Your task to perform on an android device: toggle wifi Image 0: 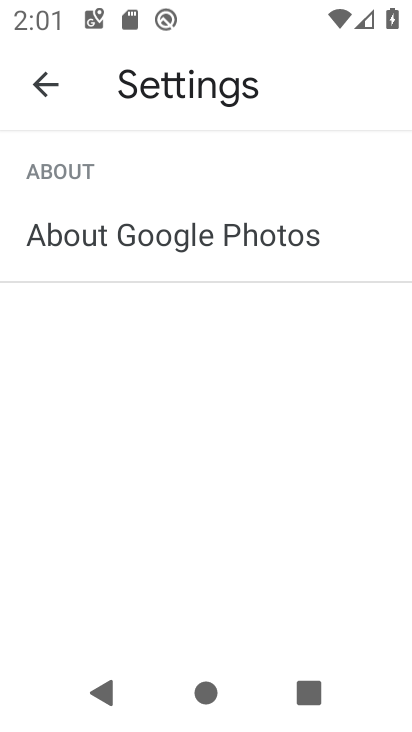
Step 0: press home button
Your task to perform on an android device: toggle wifi Image 1: 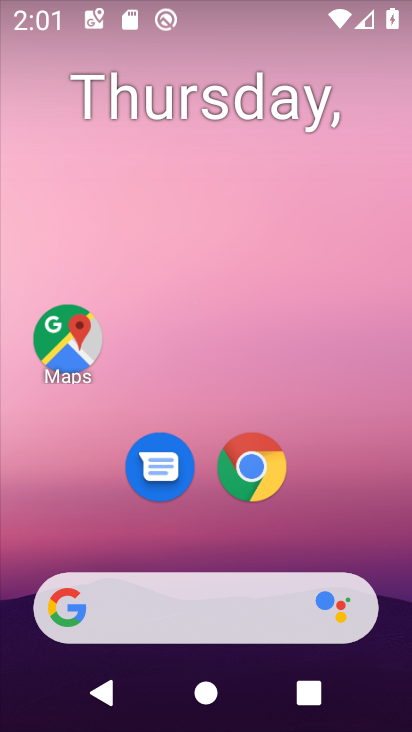
Step 1: drag from (258, 572) to (324, 41)
Your task to perform on an android device: toggle wifi Image 2: 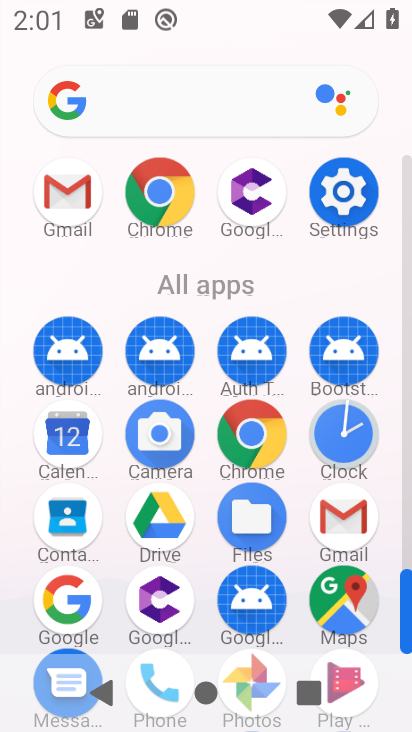
Step 2: click (342, 195)
Your task to perform on an android device: toggle wifi Image 3: 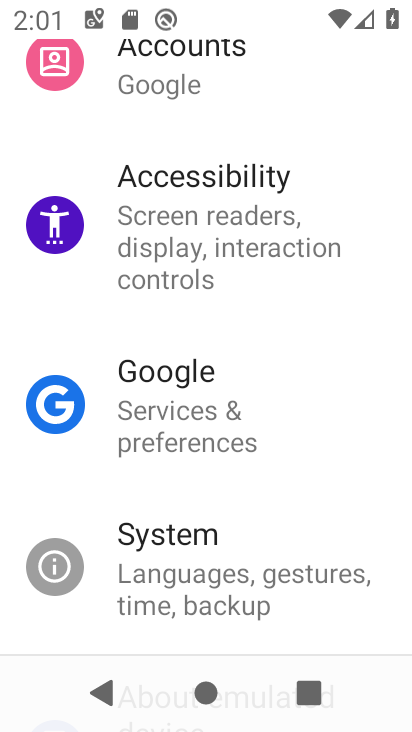
Step 3: drag from (177, 248) to (155, 729)
Your task to perform on an android device: toggle wifi Image 4: 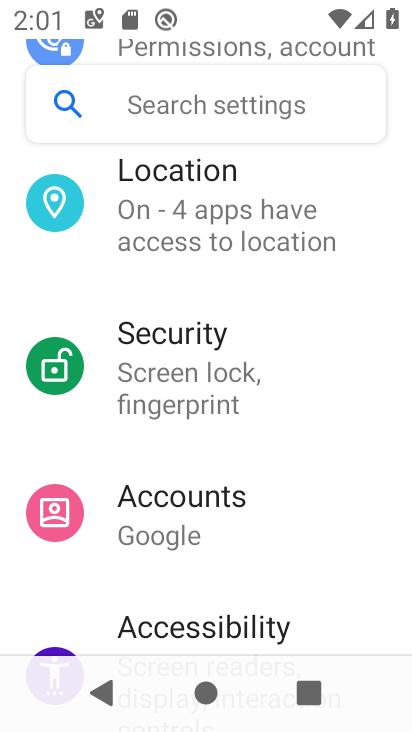
Step 4: drag from (189, 224) to (148, 712)
Your task to perform on an android device: toggle wifi Image 5: 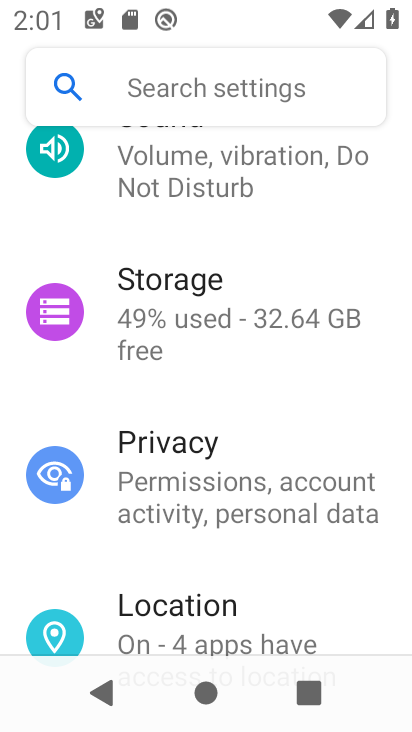
Step 5: drag from (243, 218) to (212, 717)
Your task to perform on an android device: toggle wifi Image 6: 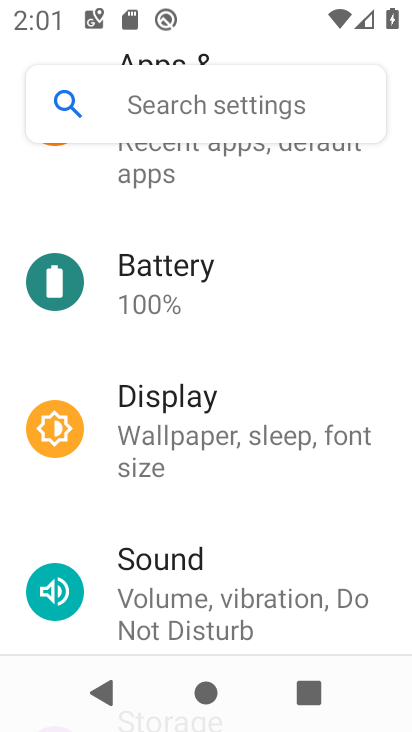
Step 6: drag from (211, 261) to (207, 597)
Your task to perform on an android device: toggle wifi Image 7: 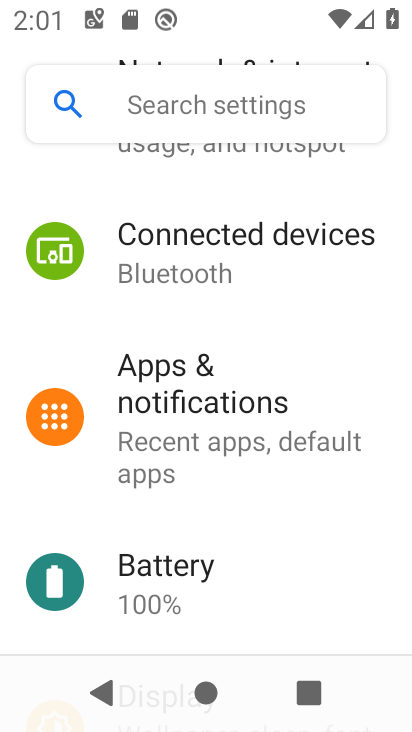
Step 7: drag from (238, 238) to (251, 622)
Your task to perform on an android device: toggle wifi Image 8: 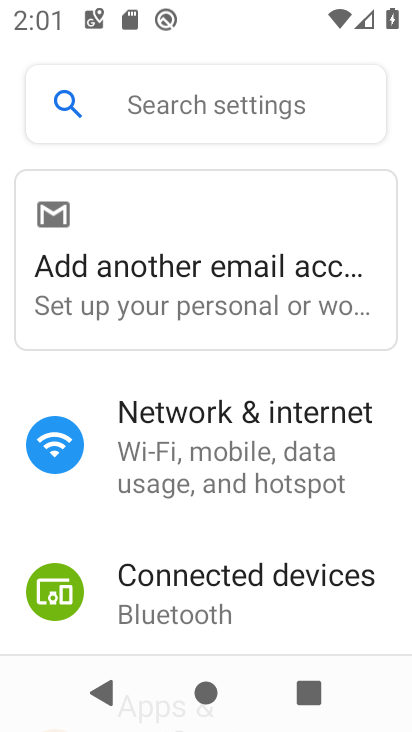
Step 8: click (245, 422)
Your task to perform on an android device: toggle wifi Image 9: 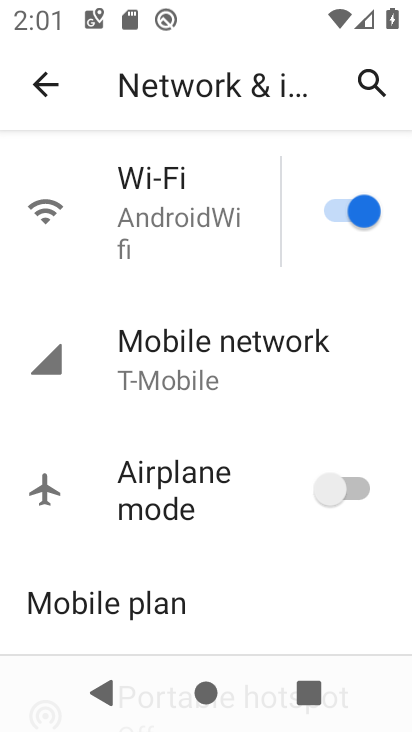
Step 9: click (191, 229)
Your task to perform on an android device: toggle wifi Image 10: 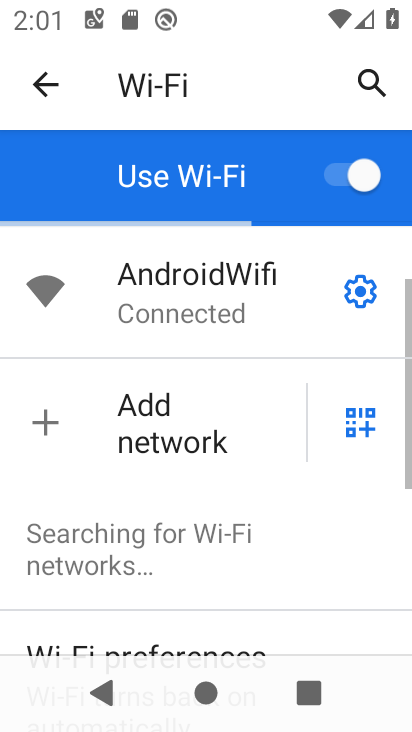
Step 10: click (378, 183)
Your task to perform on an android device: toggle wifi Image 11: 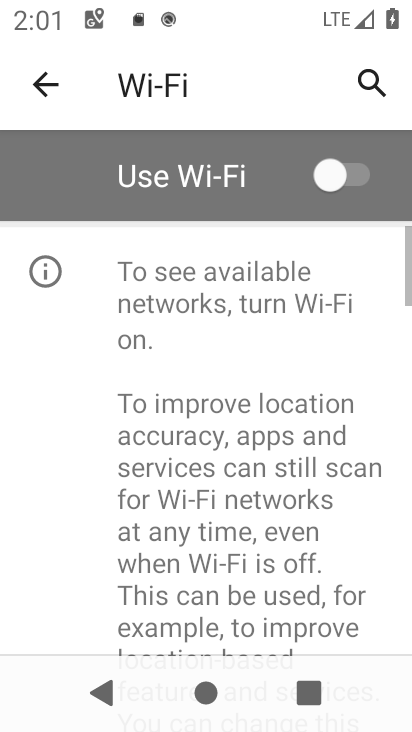
Step 11: task complete